Your task to perform on an android device: turn off wifi Image 0: 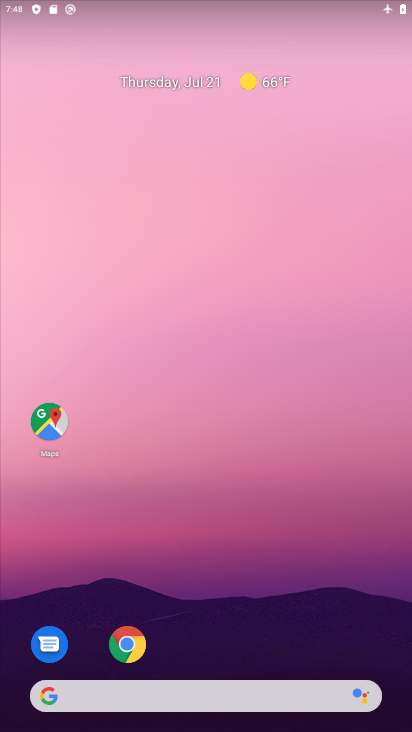
Step 0: drag from (227, 696) to (202, 273)
Your task to perform on an android device: turn off wifi Image 1: 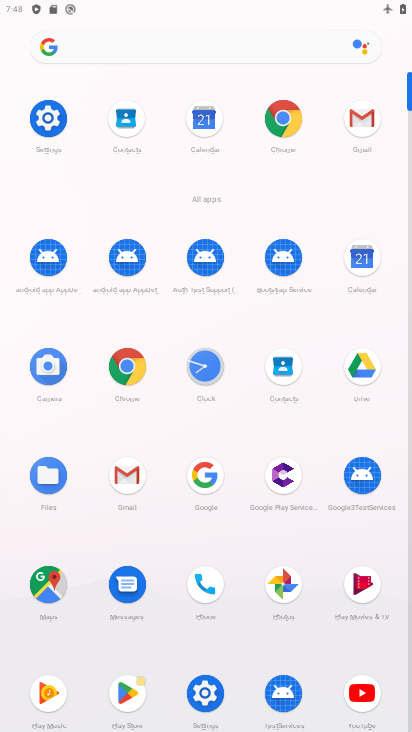
Step 1: click (52, 126)
Your task to perform on an android device: turn off wifi Image 2: 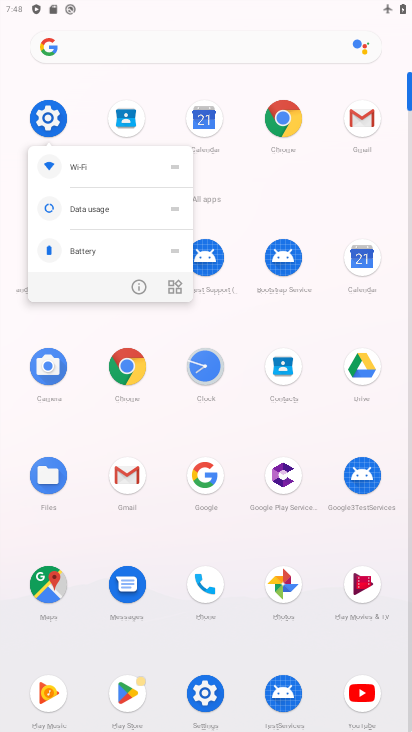
Step 2: click (56, 130)
Your task to perform on an android device: turn off wifi Image 3: 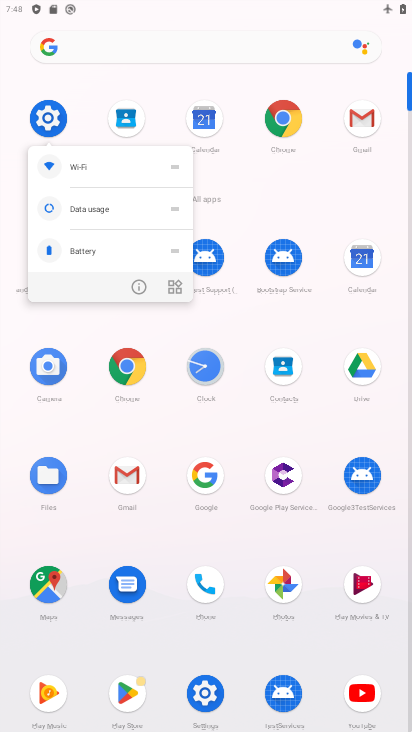
Step 3: click (61, 114)
Your task to perform on an android device: turn off wifi Image 4: 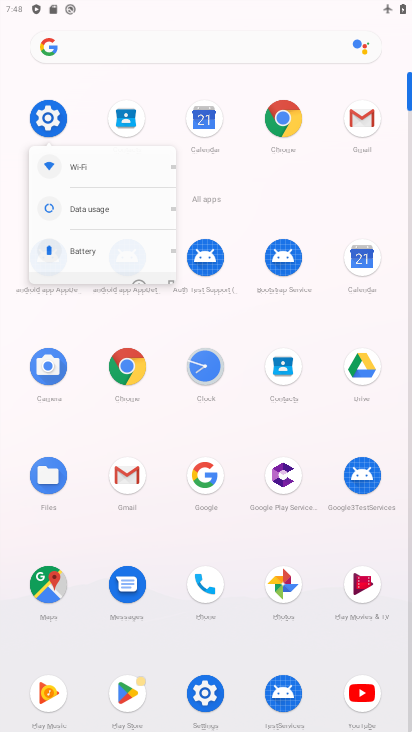
Step 4: click (59, 115)
Your task to perform on an android device: turn off wifi Image 5: 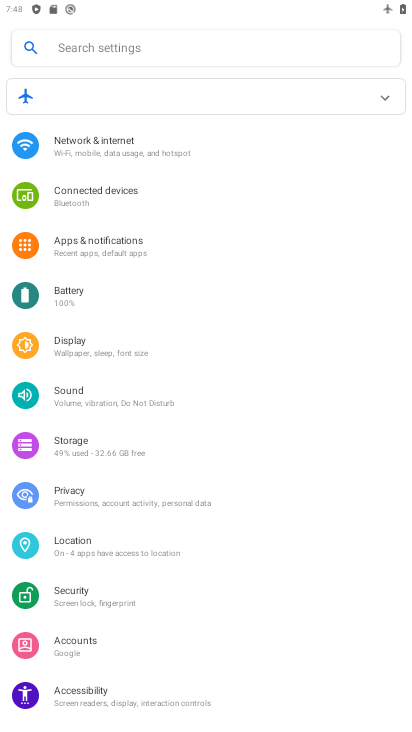
Step 5: click (97, 145)
Your task to perform on an android device: turn off wifi Image 6: 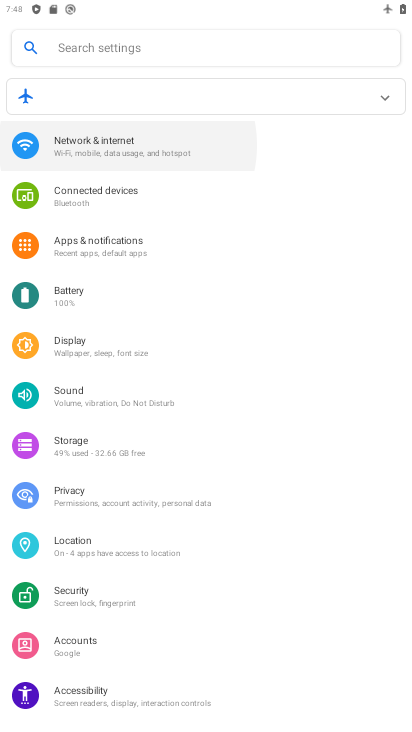
Step 6: click (100, 147)
Your task to perform on an android device: turn off wifi Image 7: 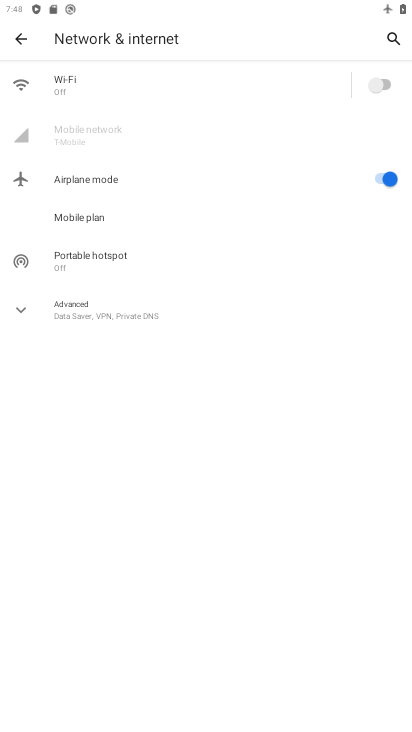
Step 7: task complete